Your task to perform on an android device: Search for seafood restaurants on Google Maps Image 0: 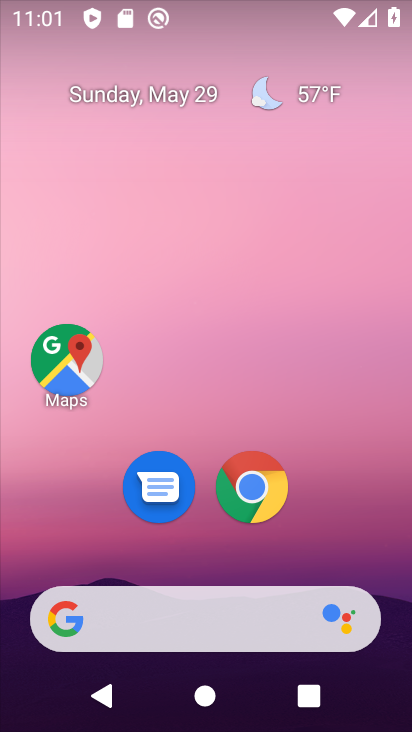
Step 0: click (68, 371)
Your task to perform on an android device: Search for seafood restaurants on Google Maps Image 1: 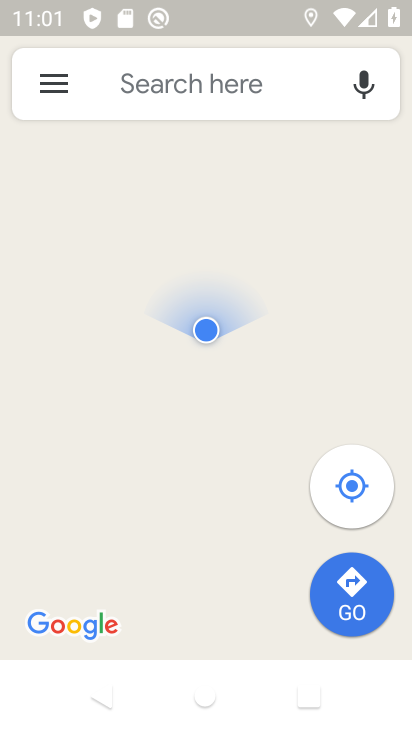
Step 1: click (213, 96)
Your task to perform on an android device: Search for seafood restaurants on Google Maps Image 2: 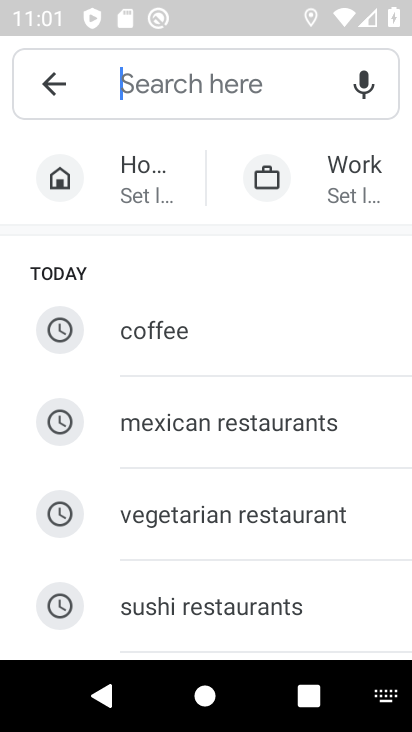
Step 2: type "Seafood restfaurants"
Your task to perform on an android device: Search for seafood restaurants on Google Maps Image 3: 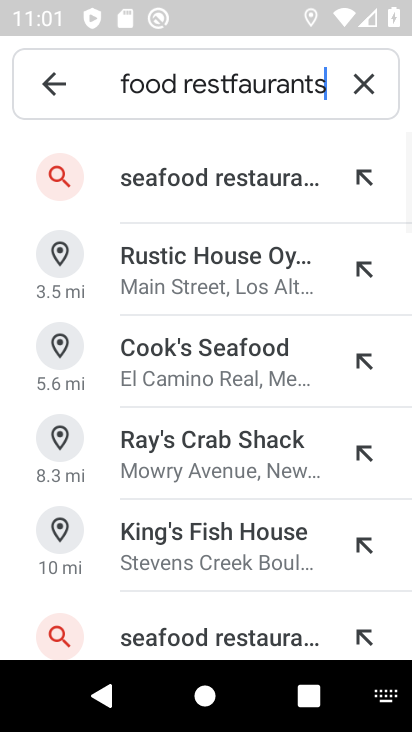
Step 3: click (255, 184)
Your task to perform on an android device: Search for seafood restaurants on Google Maps Image 4: 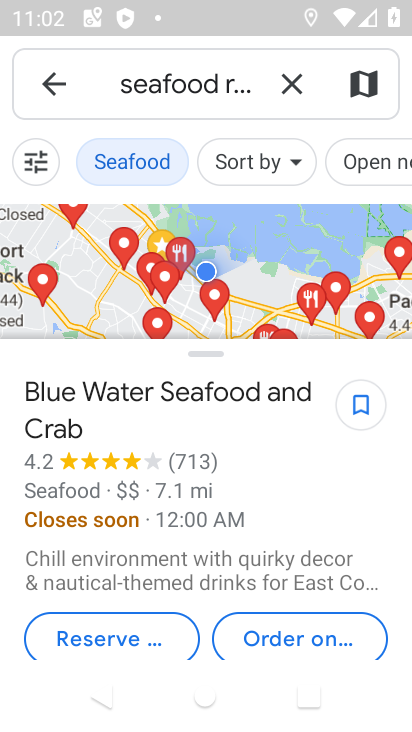
Step 4: task complete